Your task to perform on an android device: Open Google Chrome and click the shortcut for Amazon.com Image 0: 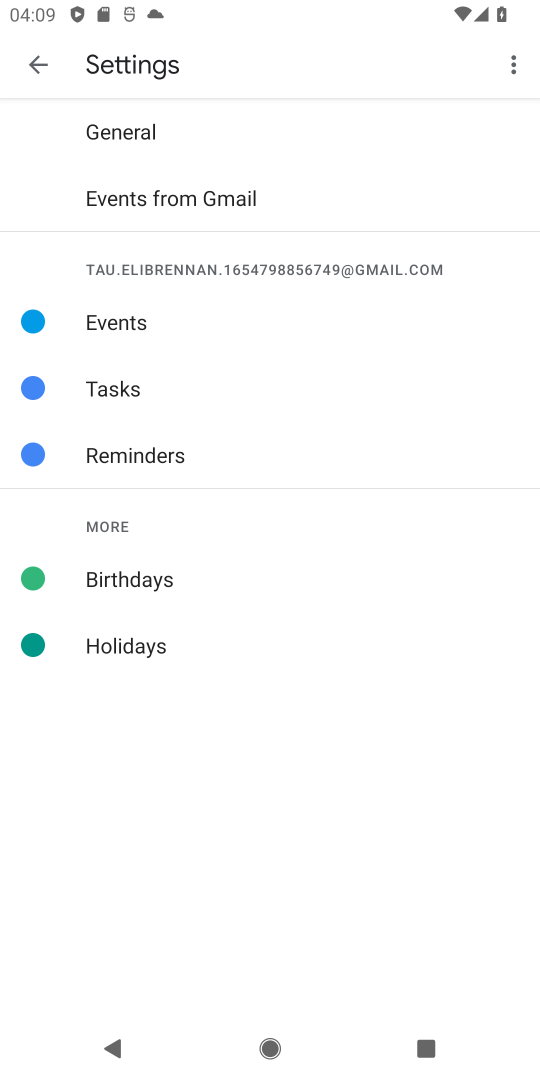
Step 0: press home button
Your task to perform on an android device: Open Google Chrome and click the shortcut for Amazon.com Image 1: 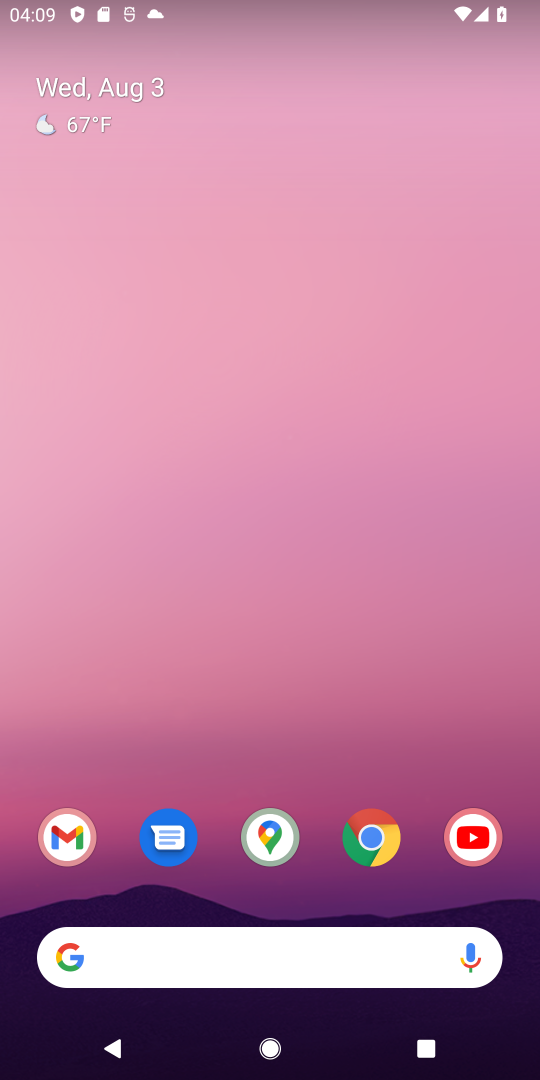
Step 1: click (373, 843)
Your task to perform on an android device: Open Google Chrome and click the shortcut for Amazon.com Image 2: 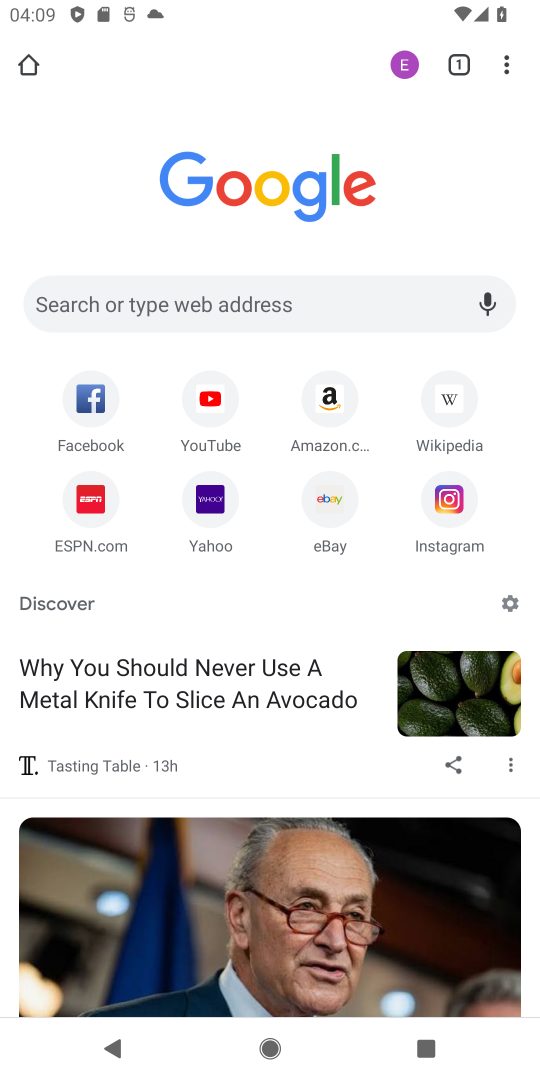
Step 2: click (330, 401)
Your task to perform on an android device: Open Google Chrome and click the shortcut for Amazon.com Image 3: 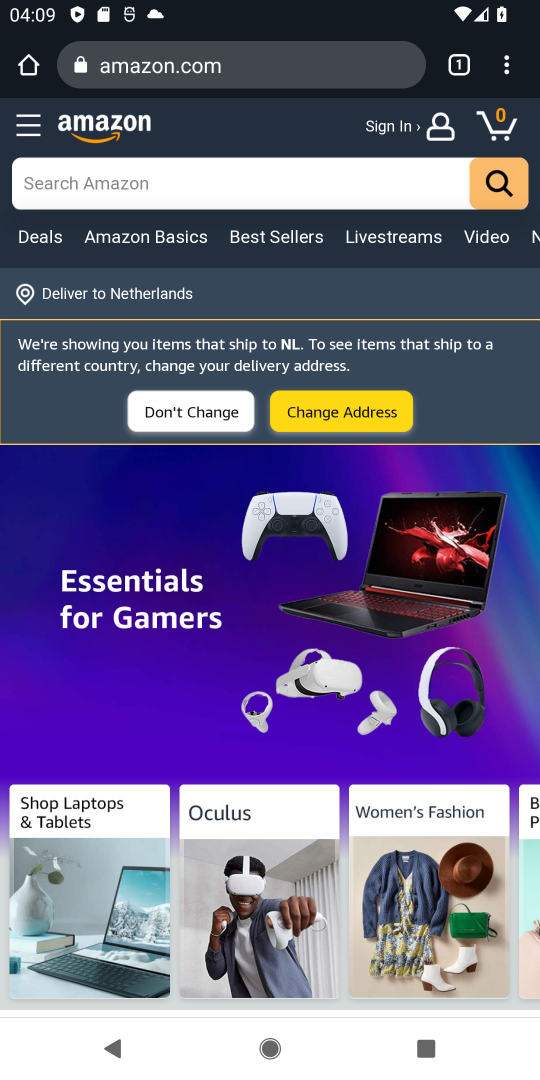
Step 3: task complete